Your task to perform on an android device: Open CNN.com Image 0: 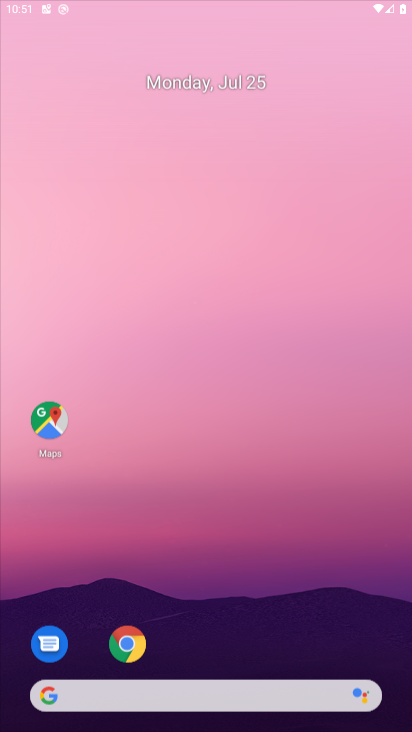
Step 0: drag from (268, 283) to (283, 84)
Your task to perform on an android device: Open CNN.com Image 1: 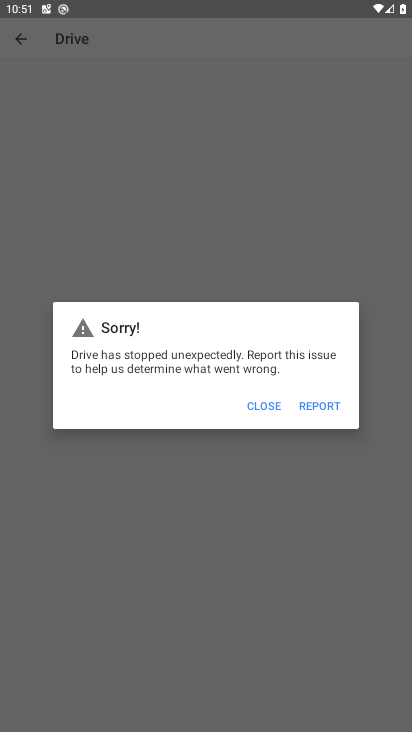
Step 1: press home button
Your task to perform on an android device: Open CNN.com Image 2: 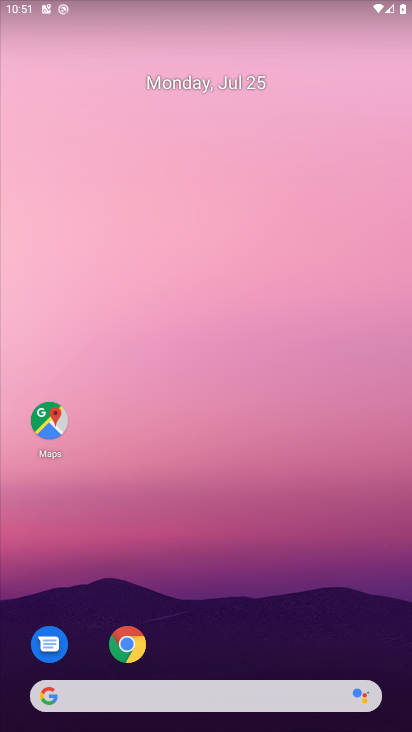
Step 2: click (135, 644)
Your task to perform on an android device: Open CNN.com Image 3: 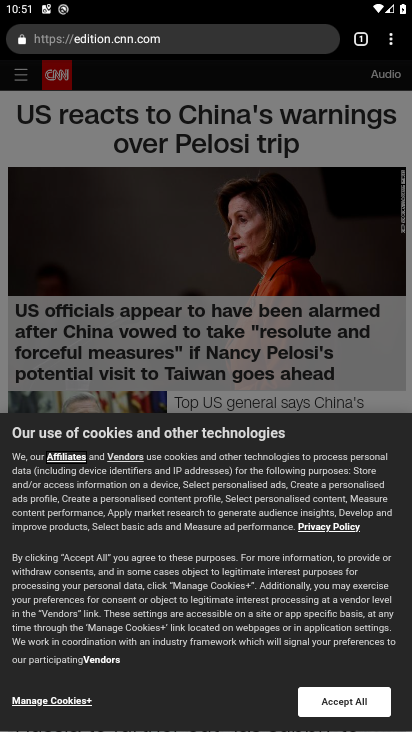
Step 3: click (139, 36)
Your task to perform on an android device: Open CNN.com Image 4: 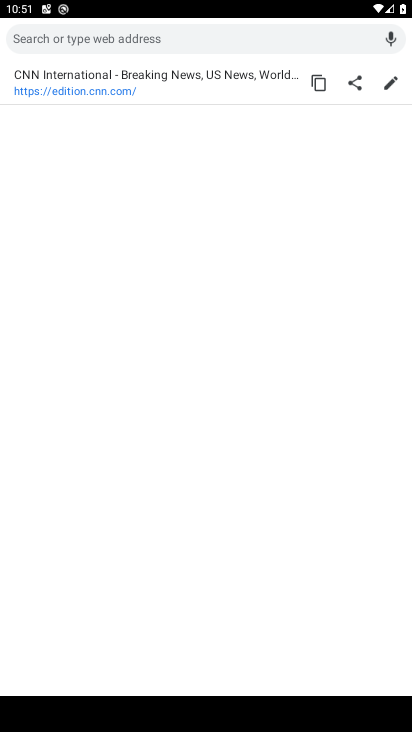
Step 4: type " CNN.com"
Your task to perform on an android device: Open CNN.com Image 5: 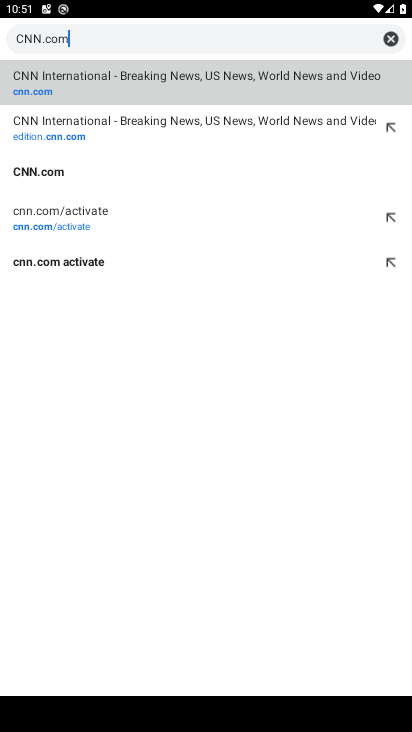
Step 5: click (18, 93)
Your task to perform on an android device: Open CNN.com Image 6: 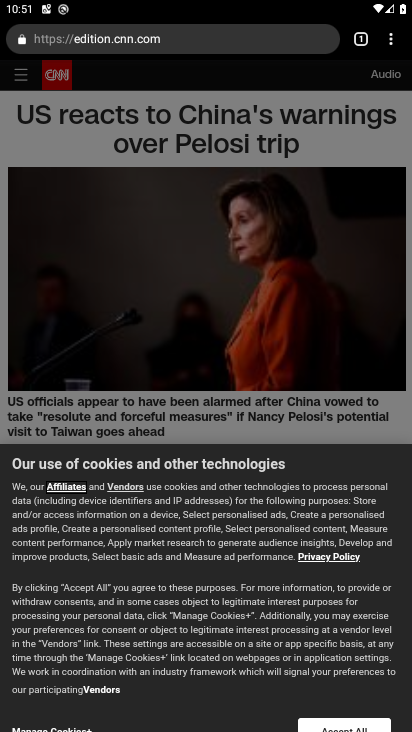
Step 6: task complete